Your task to perform on an android device: Check the news Image 0: 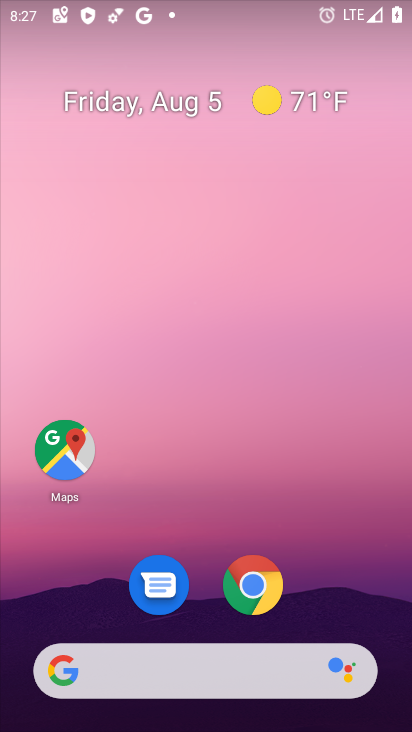
Step 0: click (251, 682)
Your task to perform on an android device: Check the news Image 1: 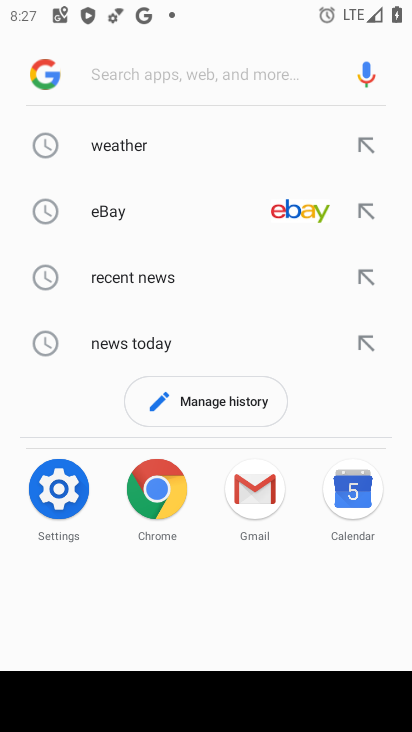
Step 1: click (121, 344)
Your task to perform on an android device: Check the news Image 2: 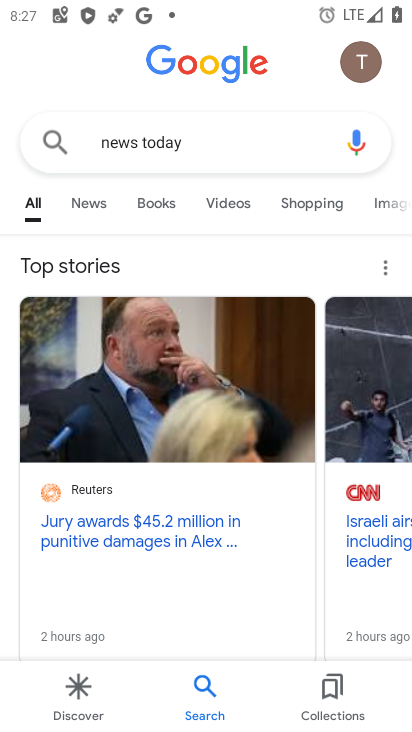
Step 2: task complete